Your task to perform on an android device: turn on sleep mode Image 0: 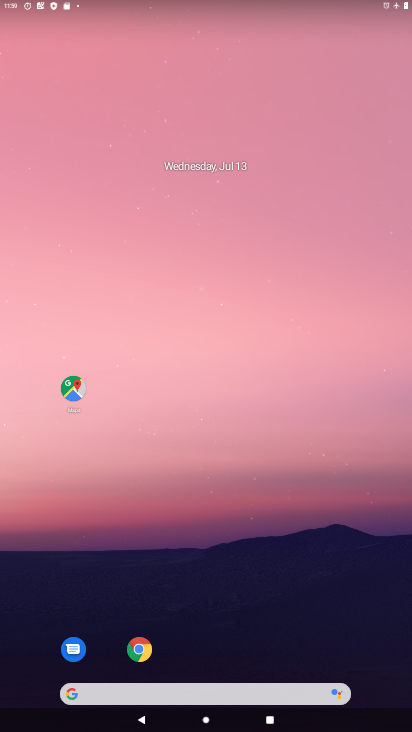
Step 0: drag from (210, 695) to (303, 84)
Your task to perform on an android device: turn on sleep mode Image 1: 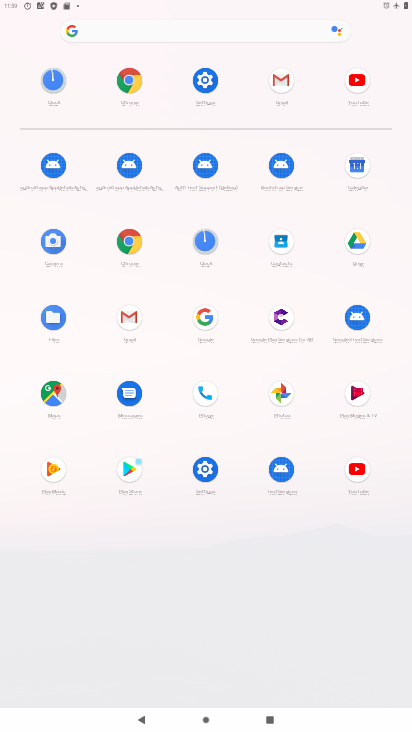
Step 1: click (205, 81)
Your task to perform on an android device: turn on sleep mode Image 2: 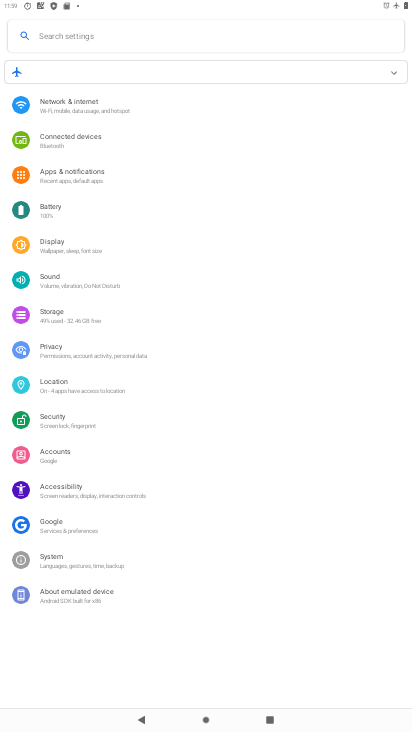
Step 2: click (63, 248)
Your task to perform on an android device: turn on sleep mode Image 3: 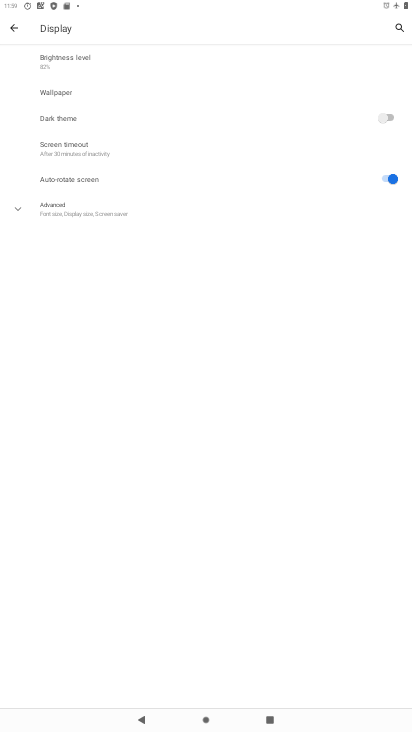
Step 3: click (55, 211)
Your task to perform on an android device: turn on sleep mode Image 4: 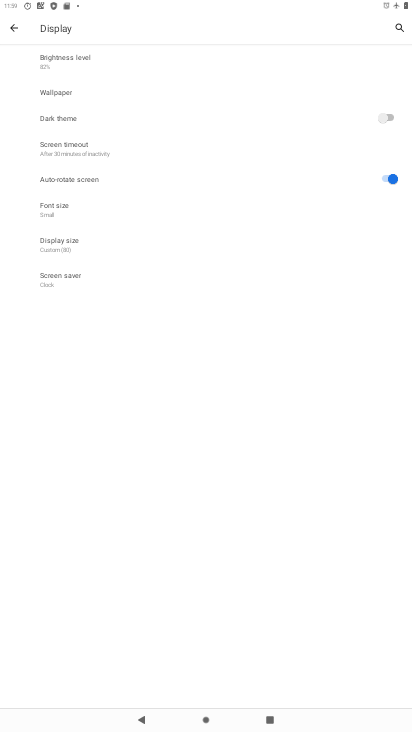
Step 4: press back button
Your task to perform on an android device: turn on sleep mode Image 5: 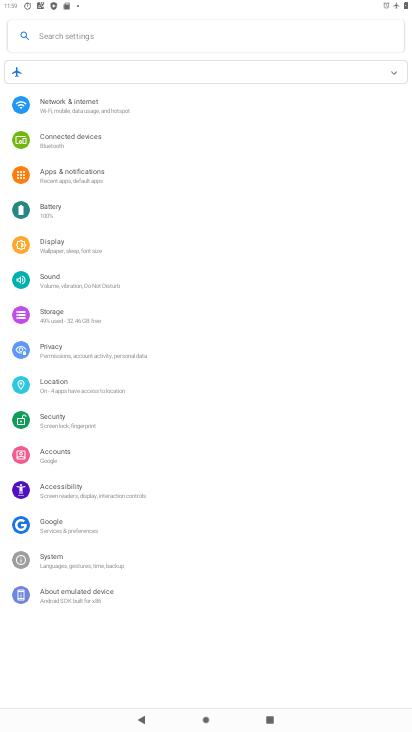
Step 5: click (90, 254)
Your task to perform on an android device: turn on sleep mode Image 6: 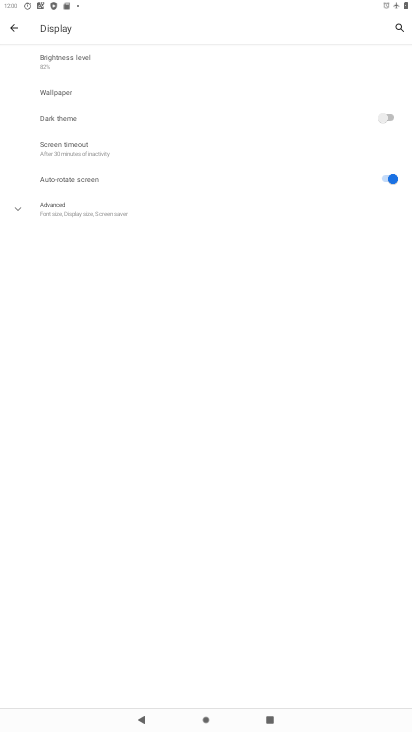
Step 6: task complete